Your task to perform on an android device: Open accessibility settings Image 0: 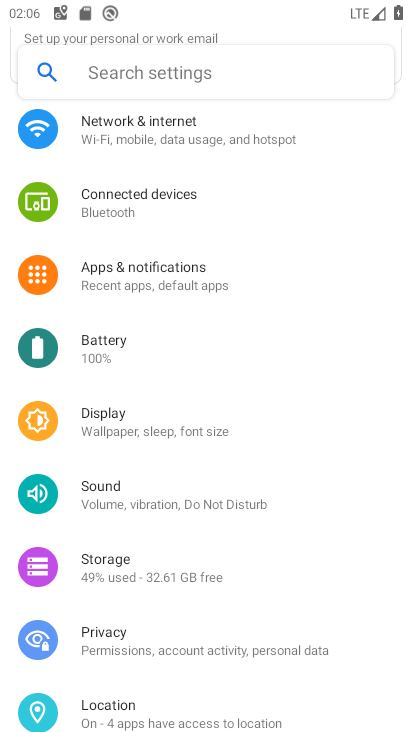
Step 0: press home button
Your task to perform on an android device: Open accessibility settings Image 1: 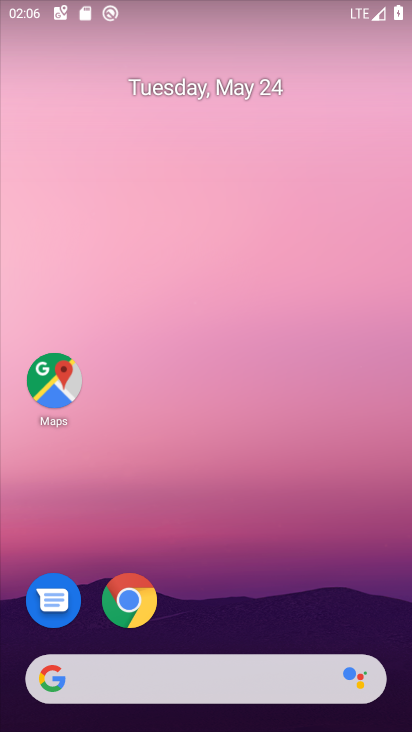
Step 1: drag from (198, 482) to (190, 220)
Your task to perform on an android device: Open accessibility settings Image 2: 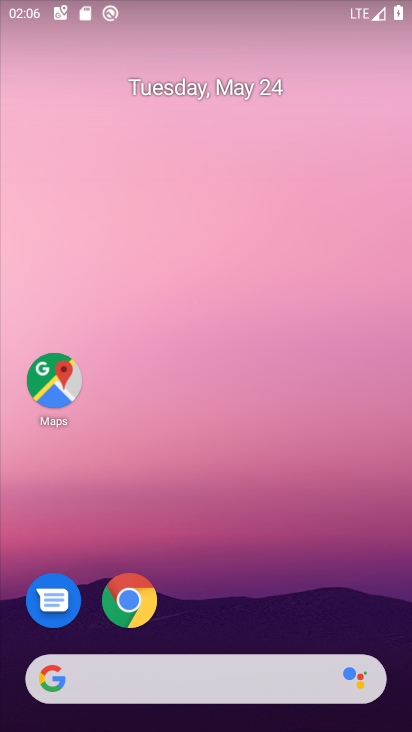
Step 2: drag from (166, 524) to (156, 209)
Your task to perform on an android device: Open accessibility settings Image 3: 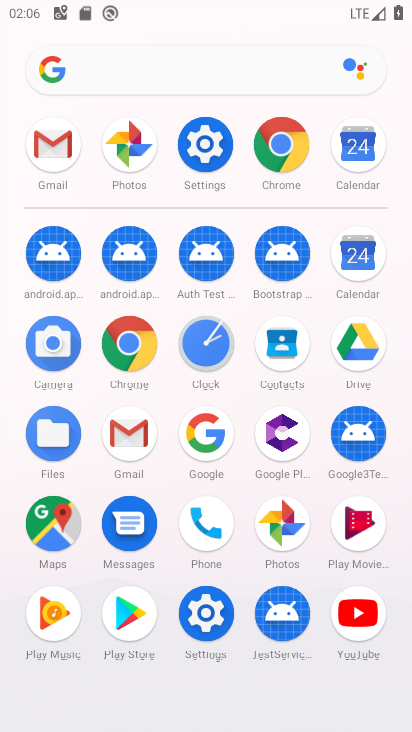
Step 3: click (214, 152)
Your task to perform on an android device: Open accessibility settings Image 4: 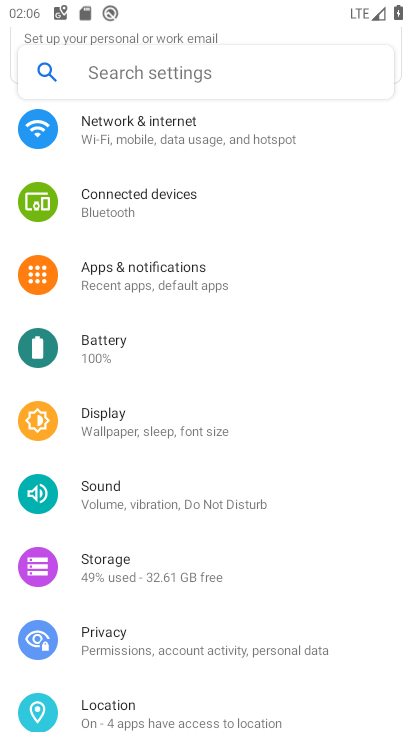
Step 4: drag from (232, 570) to (224, 253)
Your task to perform on an android device: Open accessibility settings Image 5: 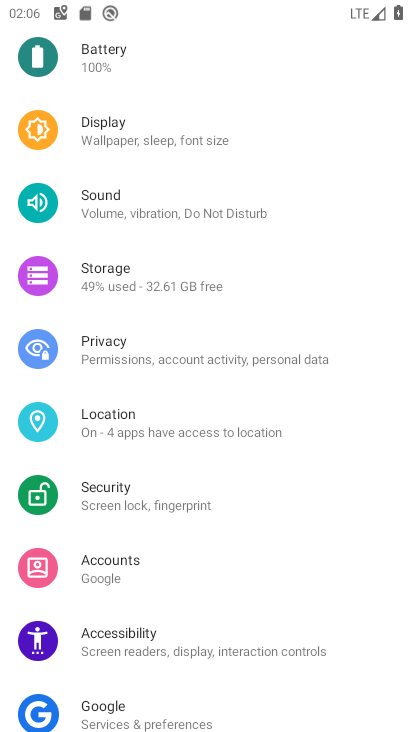
Step 5: click (202, 637)
Your task to perform on an android device: Open accessibility settings Image 6: 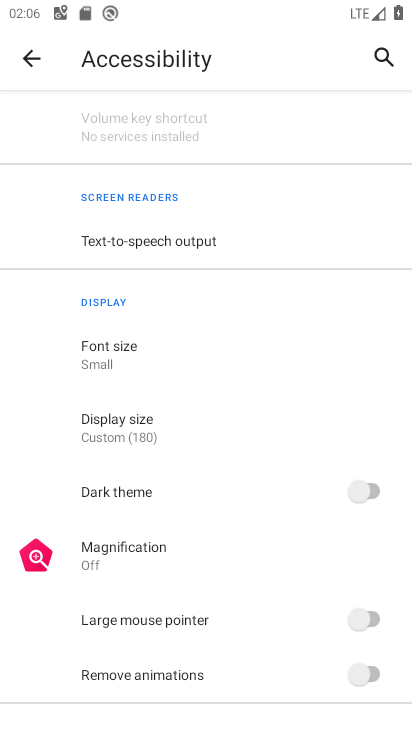
Step 6: task complete